Your task to perform on an android device: See recent photos Image 0: 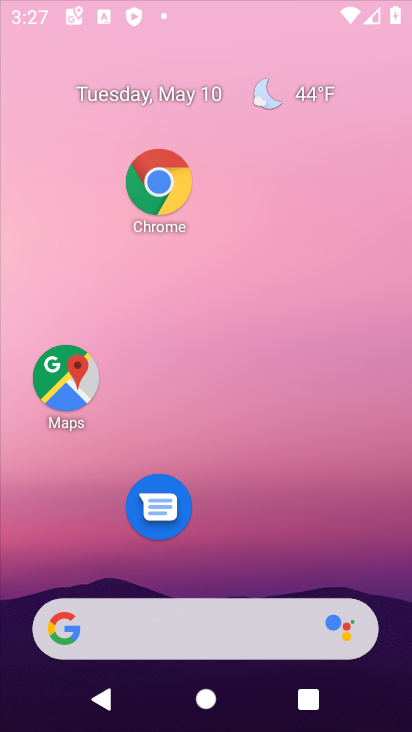
Step 0: drag from (305, 502) to (239, 119)
Your task to perform on an android device: See recent photos Image 1: 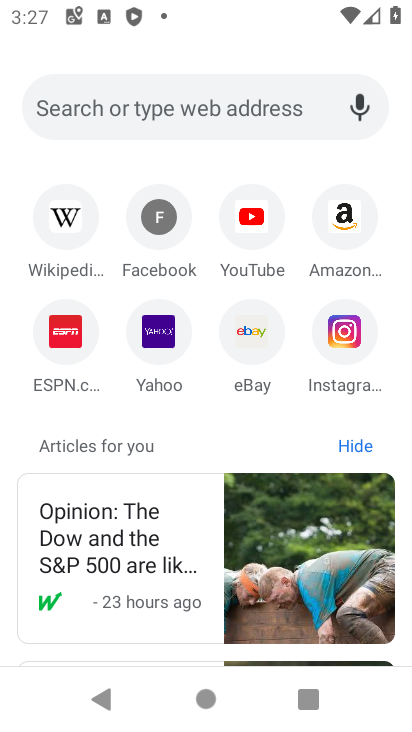
Step 1: task complete